Your task to perform on an android device: Go to location settings Image 0: 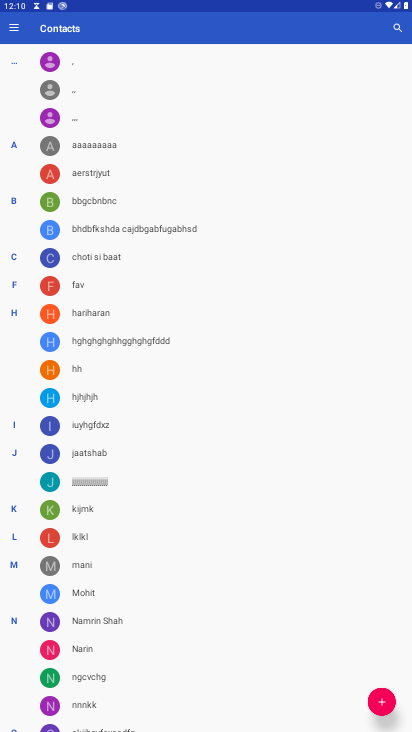
Step 0: press home button
Your task to perform on an android device: Go to location settings Image 1: 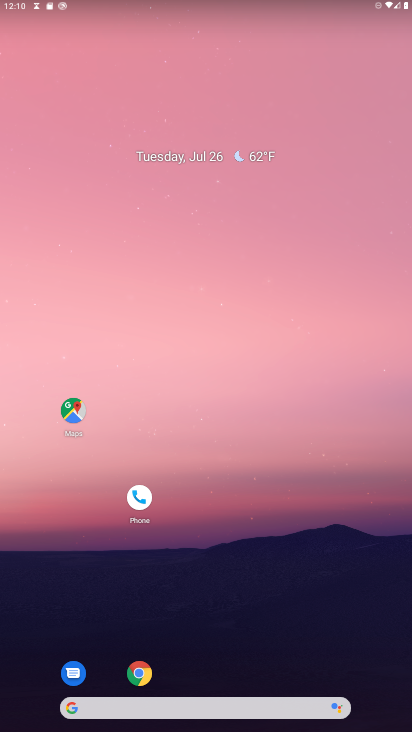
Step 1: drag from (203, 292) to (192, 103)
Your task to perform on an android device: Go to location settings Image 2: 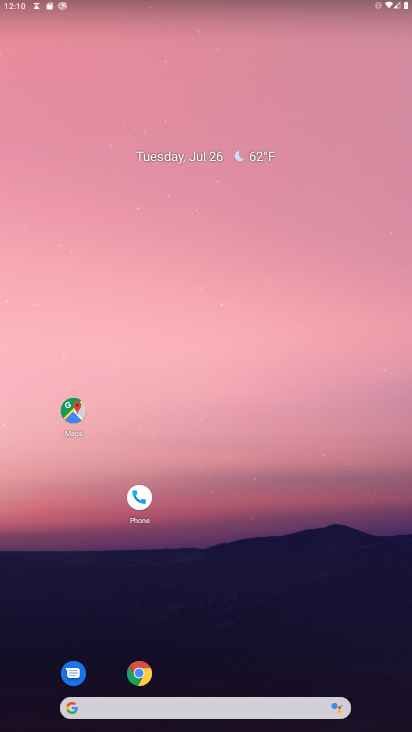
Step 2: drag from (261, 648) to (176, 20)
Your task to perform on an android device: Go to location settings Image 3: 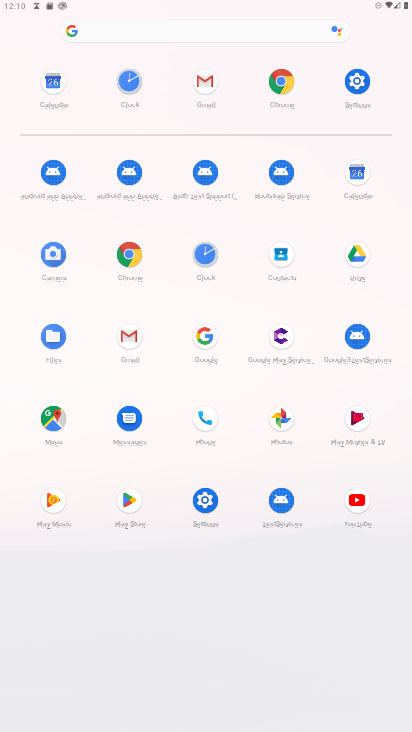
Step 3: click (358, 85)
Your task to perform on an android device: Go to location settings Image 4: 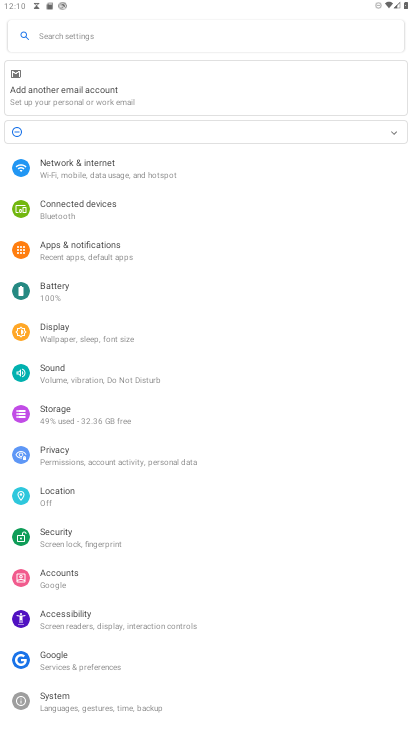
Step 4: click (42, 494)
Your task to perform on an android device: Go to location settings Image 5: 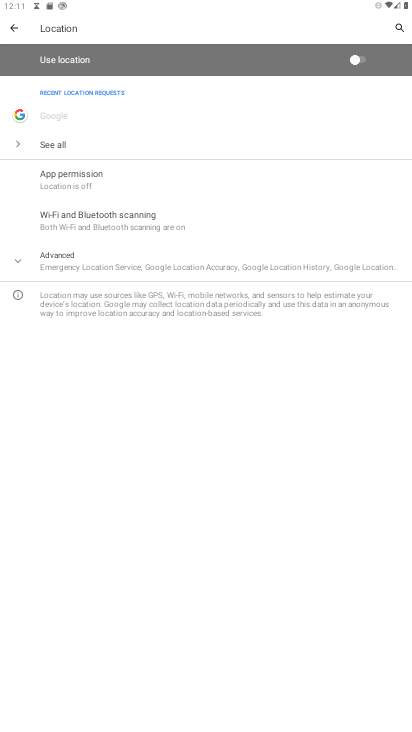
Step 5: click (356, 67)
Your task to perform on an android device: Go to location settings Image 6: 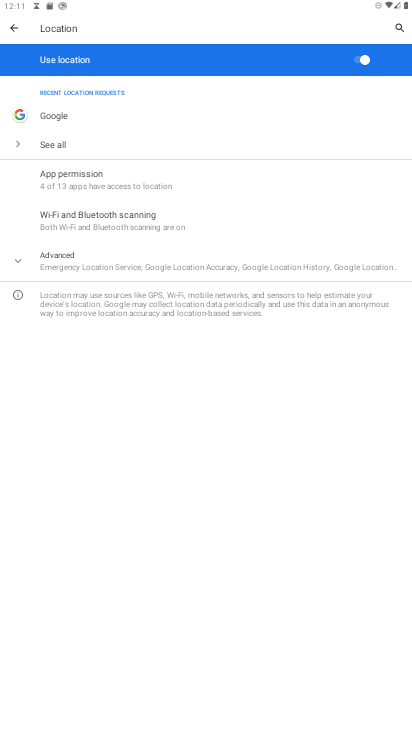
Step 6: task complete